Your task to perform on an android device: Go to Reddit.com Image 0: 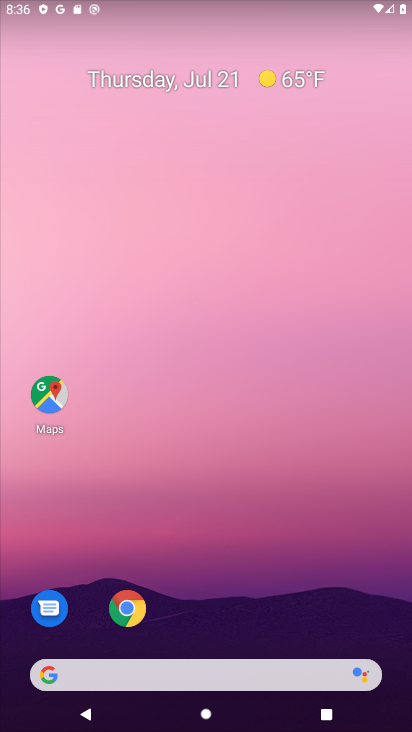
Step 0: click (205, 676)
Your task to perform on an android device: Go to Reddit.com Image 1: 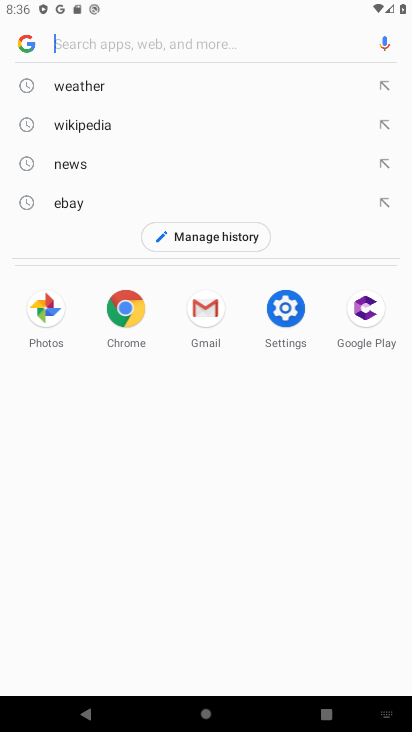
Step 1: type " Reddit.com"
Your task to perform on an android device: Go to Reddit.com Image 2: 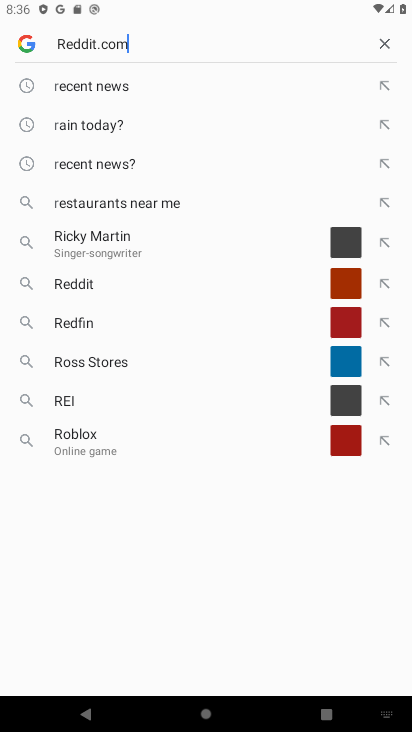
Step 2: press enter
Your task to perform on an android device: Go to Reddit.com Image 3: 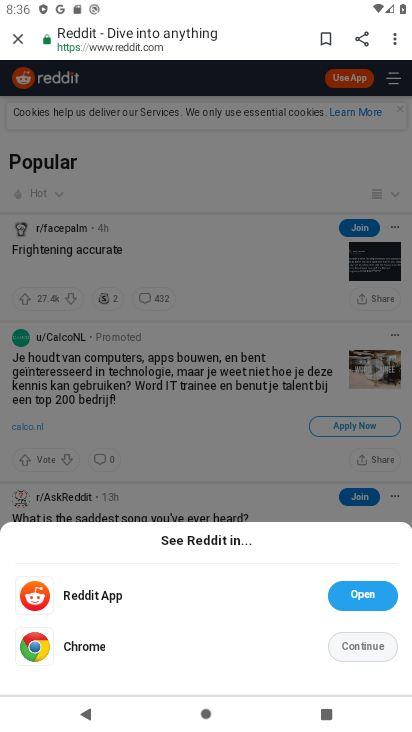
Step 3: task complete